Your task to perform on an android device: Go to calendar. Show me events next week Image 0: 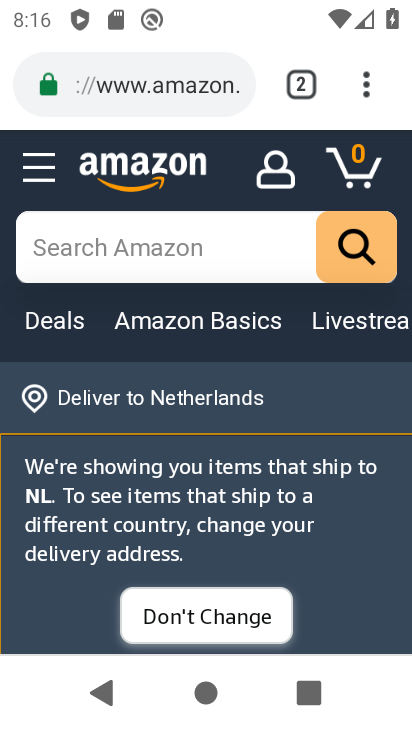
Step 0: click (390, 497)
Your task to perform on an android device: Go to calendar. Show me events next week Image 1: 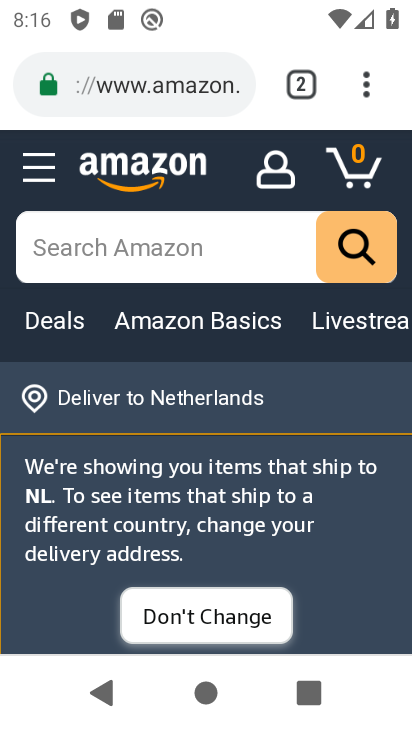
Step 1: press home button
Your task to perform on an android device: Go to calendar. Show me events next week Image 2: 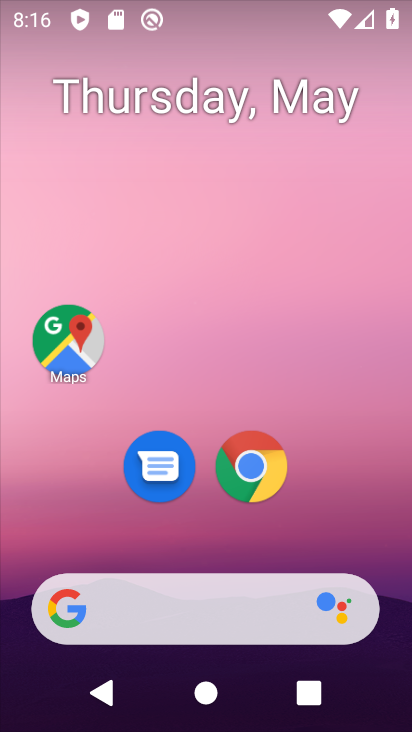
Step 2: drag from (397, 520) to (305, 122)
Your task to perform on an android device: Go to calendar. Show me events next week Image 3: 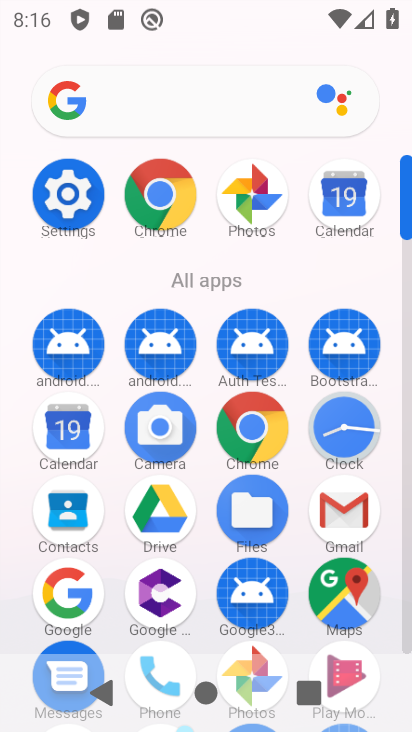
Step 3: click (358, 196)
Your task to perform on an android device: Go to calendar. Show me events next week Image 4: 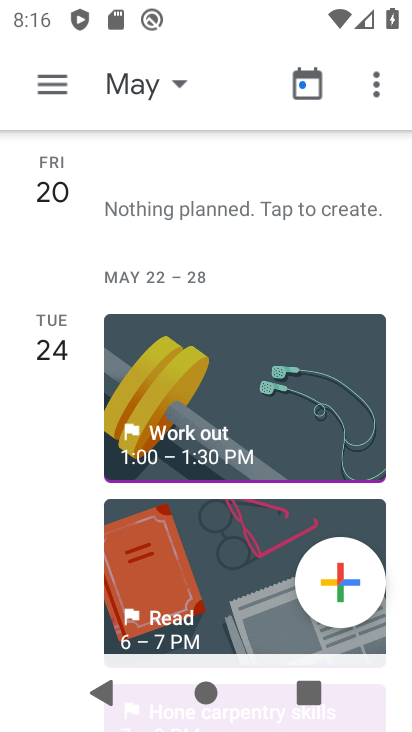
Step 4: click (62, 103)
Your task to perform on an android device: Go to calendar. Show me events next week Image 5: 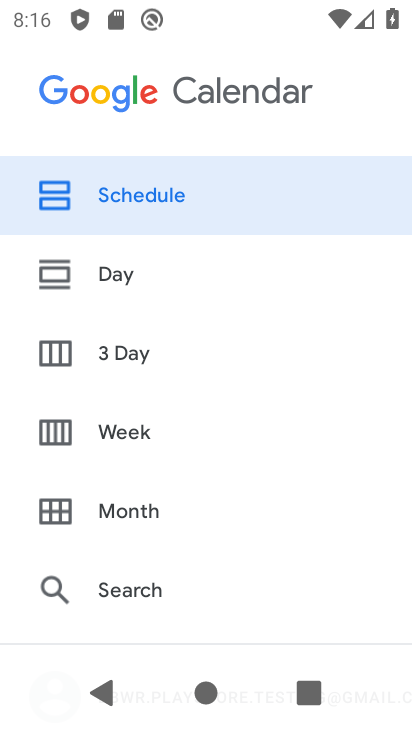
Step 5: click (145, 428)
Your task to perform on an android device: Go to calendar. Show me events next week Image 6: 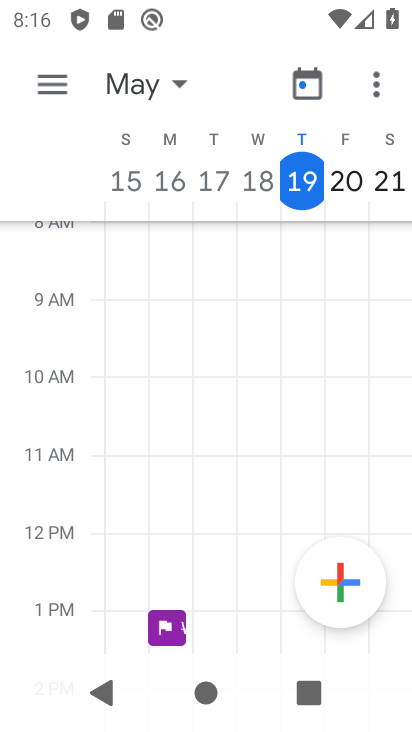
Step 6: click (148, 86)
Your task to perform on an android device: Go to calendar. Show me events next week Image 7: 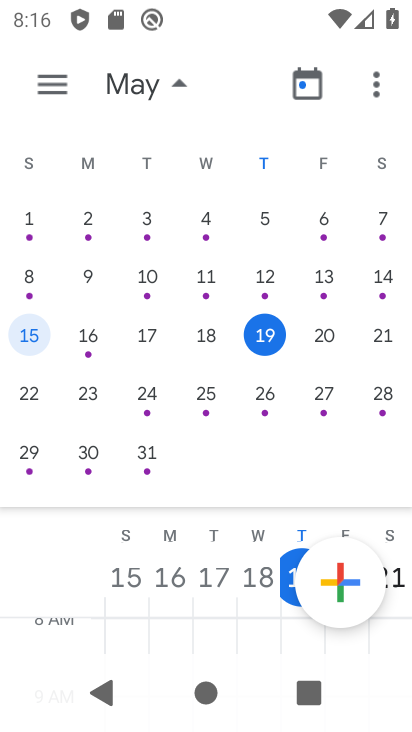
Step 7: click (257, 376)
Your task to perform on an android device: Go to calendar. Show me events next week Image 8: 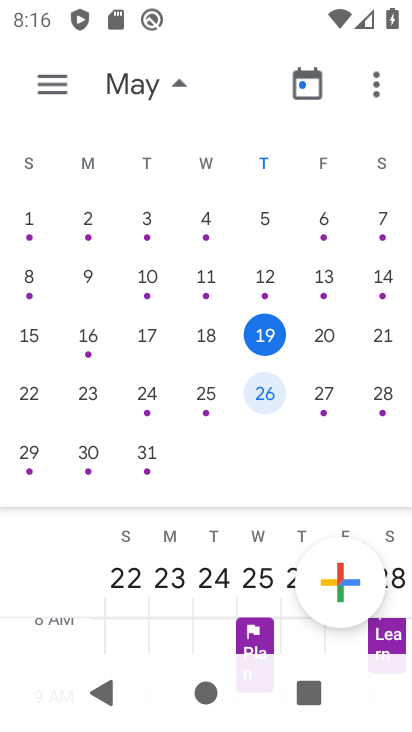
Step 8: click (163, 91)
Your task to perform on an android device: Go to calendar. Show me events next week Image 9: 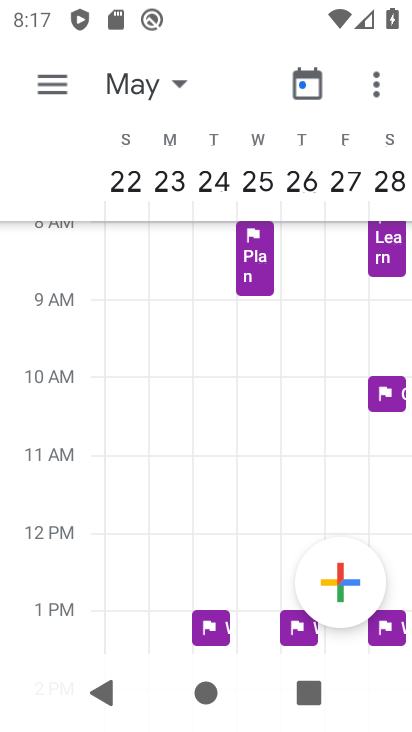
Step 9: task complete